Your task to perform on an android device: Open ESPN.com Image 0: 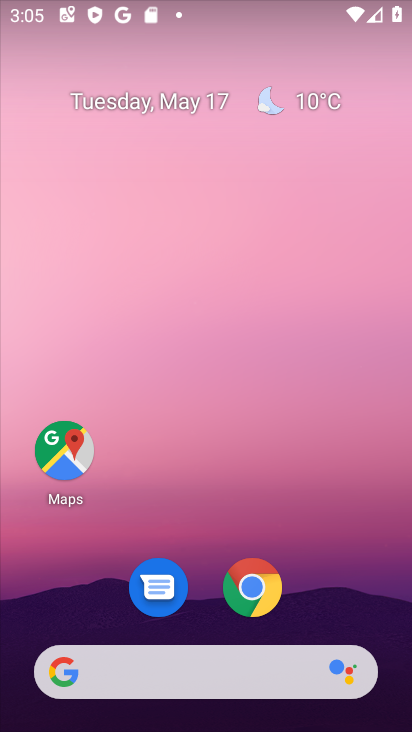
Step 0: drag from (349, 583) to (259, 9)
Your task to perform on an android device: Open ESPN.com Image 1: 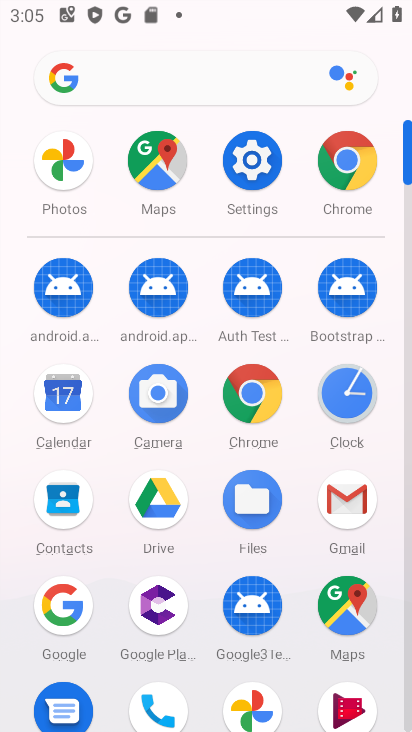
Step 1: drag from (32, 590) to (20, 276)
Your task to perform on an android device: Open ESPN.com Image 2: 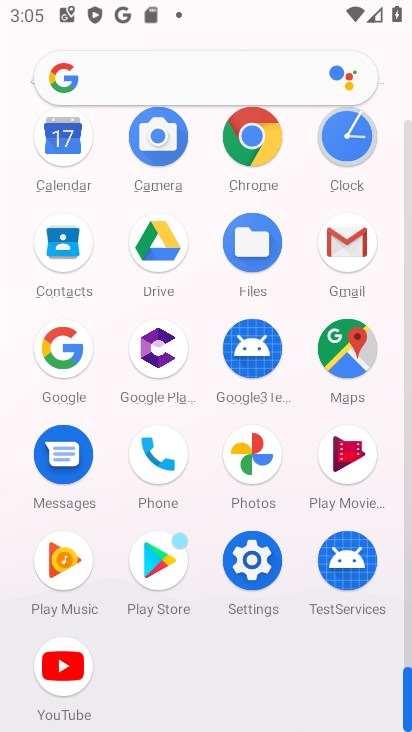
Step 2: click (247, 136)
Your task to perform on an android device: Open ESPN.com Image 3: 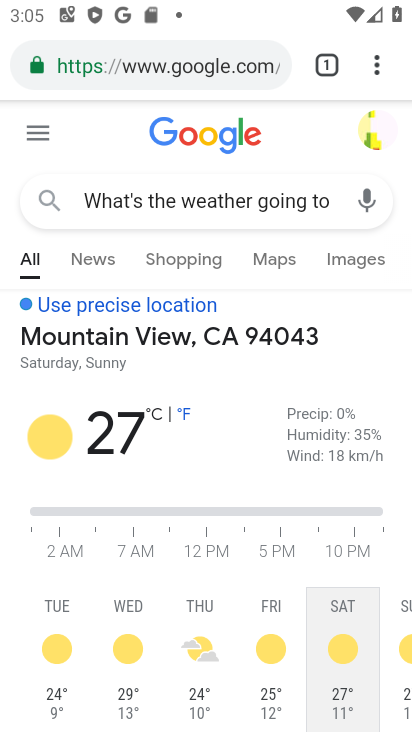
Step 3: click (194, 63)
Your task to perform on an android device: Open ESPN.com Image 4: 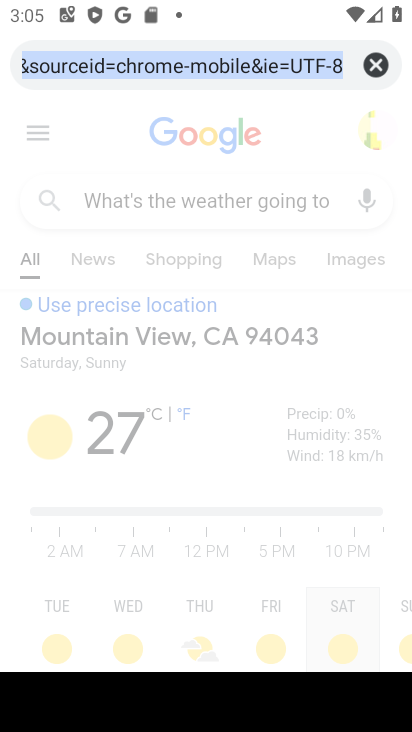
Step 4: click (374, 61)
Your task to perform on an android device: Open ESPN.com Image 5: 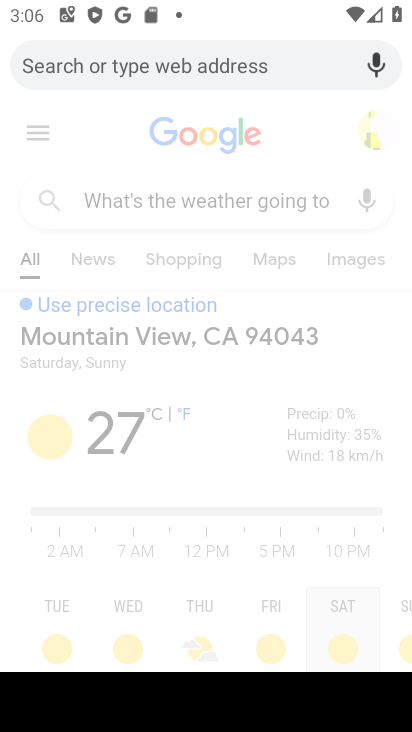
Step 5: type "ESPN.com"
Your task to perform on an android device: Open ESPN.com Image 6: 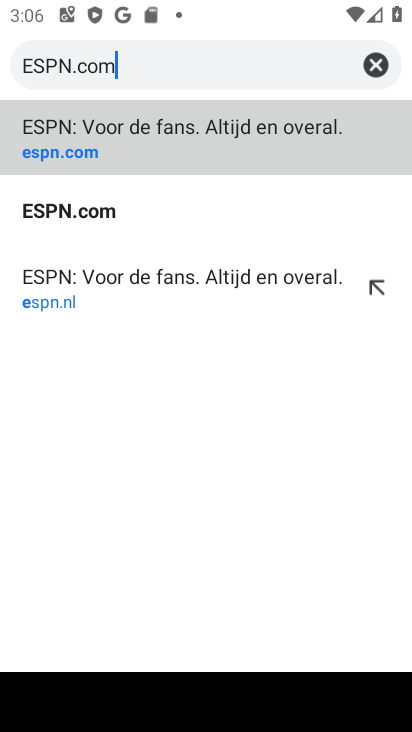
Step 6: type ""
Your task to perform on an android device: Open ESPN.com Image 7: 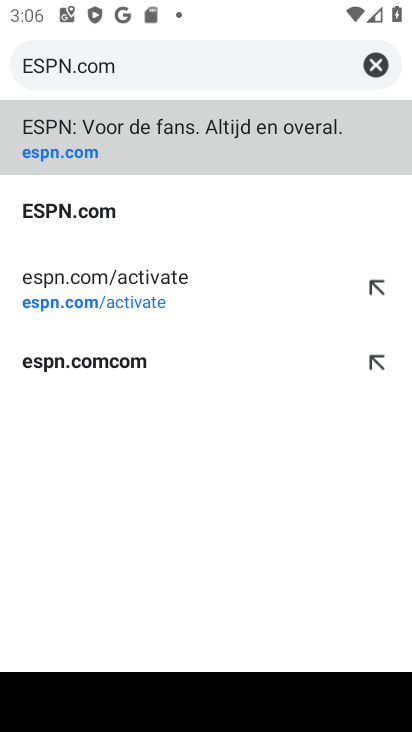
Step 7: click (129, 145)
Your task to perform on an android device: Open ESPN.com Image 8: 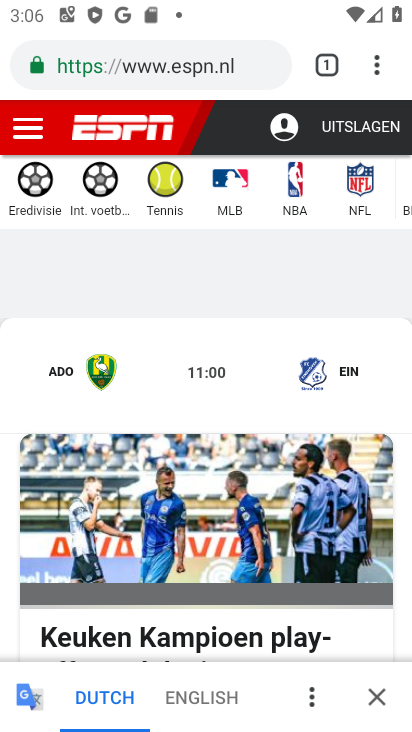
Step 8: task complete